Your task to perform on an android device: turn on the 12-hour format for clock Image 0: 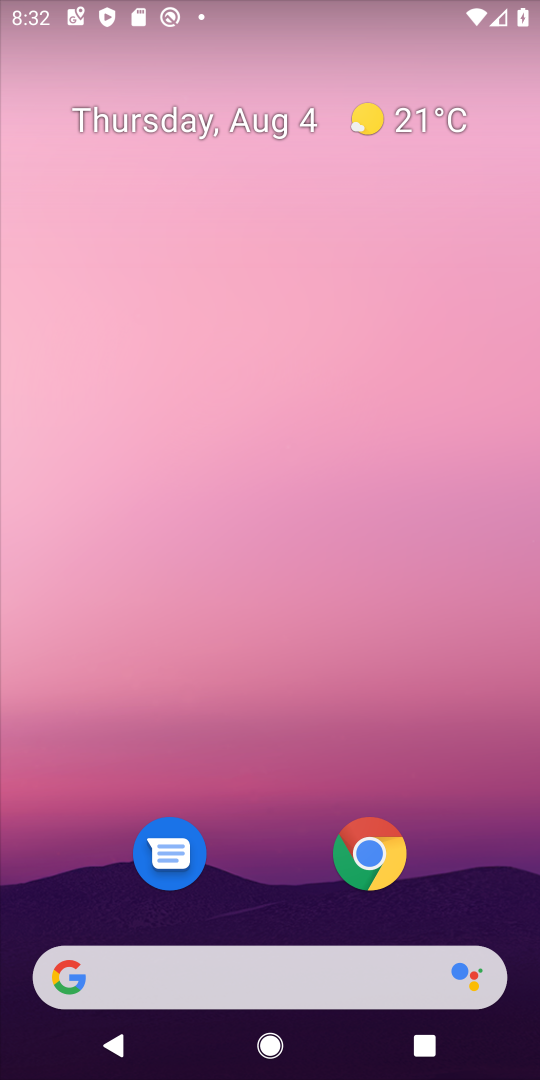
Step 0: drag from (283, 916) to (347, 242)
Your task to perform on an android device: turn on the 12-hour format for clock Image 1: 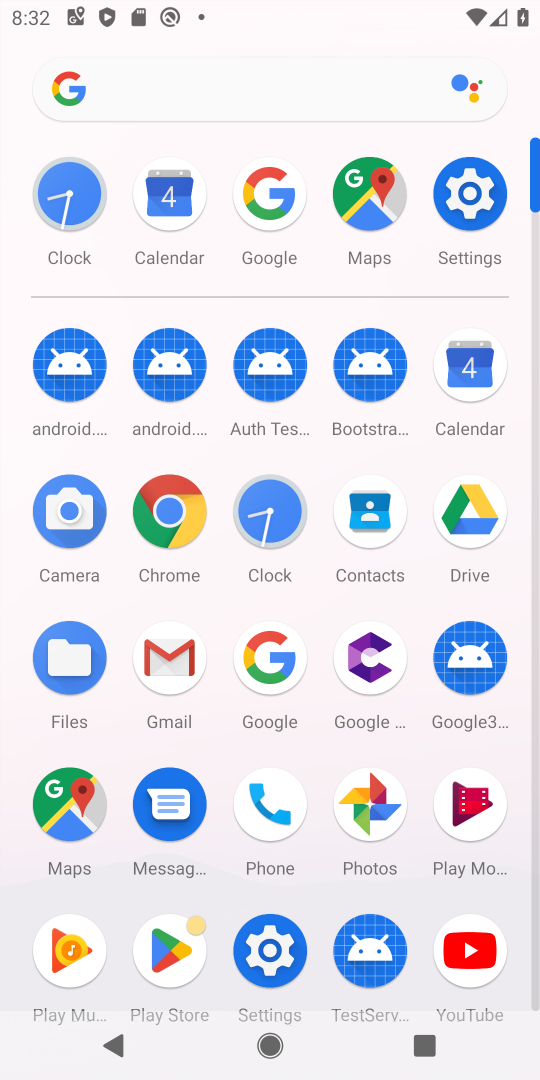
Step 1: click (276, 515)
Your task to perform on an android device: turn on the 12-hour format for clock Image 2: 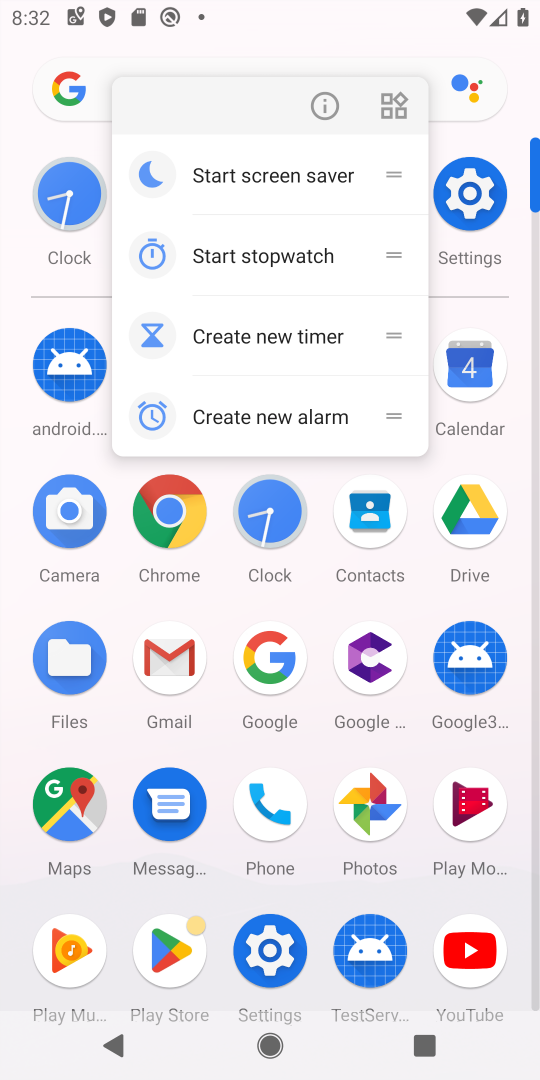
Step 2: click (276, 515)
Your task to perform on an android device: turn on the 12-hour format for clock Image 3: 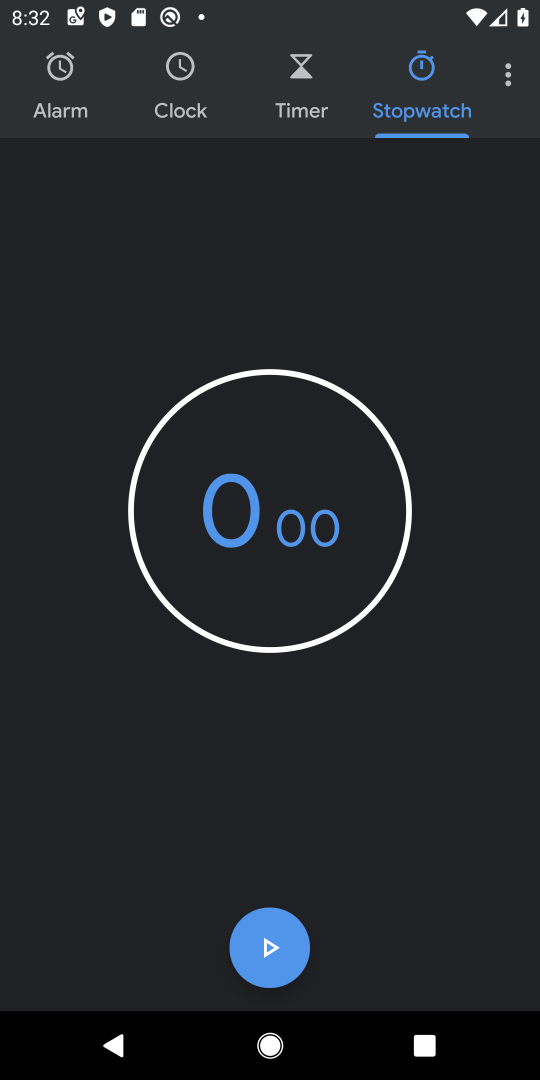
Step 3: click (490, 92)
Your task to perform on an android device: turn on the 12-hour format for clock Image 4: 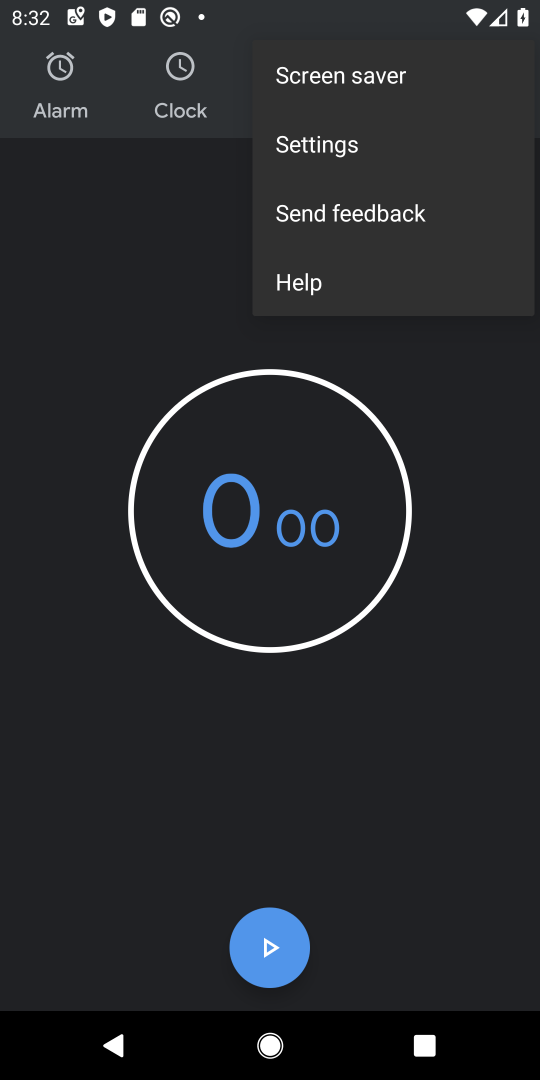
Step 4: click (353, 147)
Your task to perform on an android device: turn on the 12-hour format for clock Image 5: 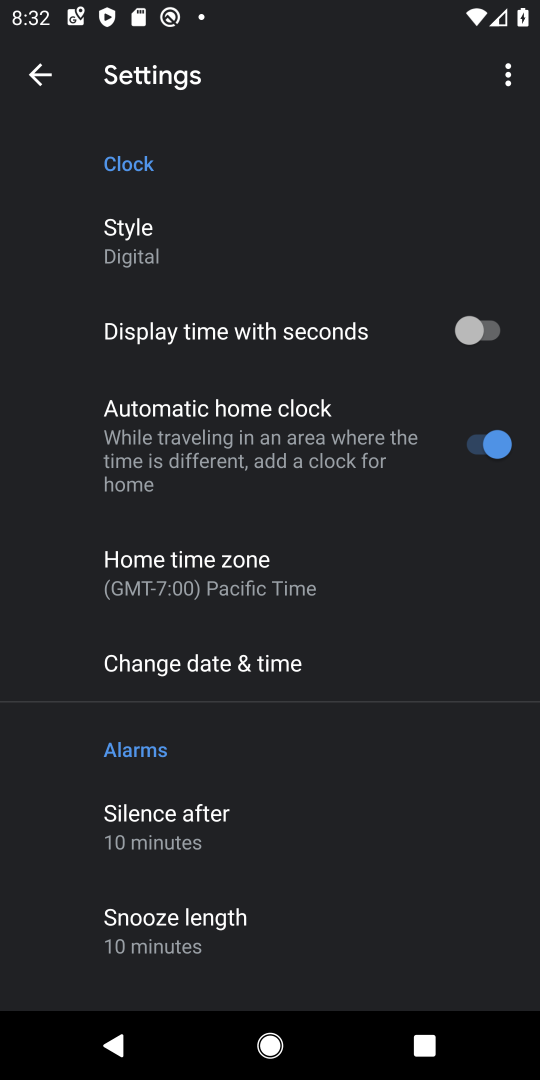
Step 5: click (208, 668)
Your task to perform on an android device: turn on the 12-hour format for clock Image 6: 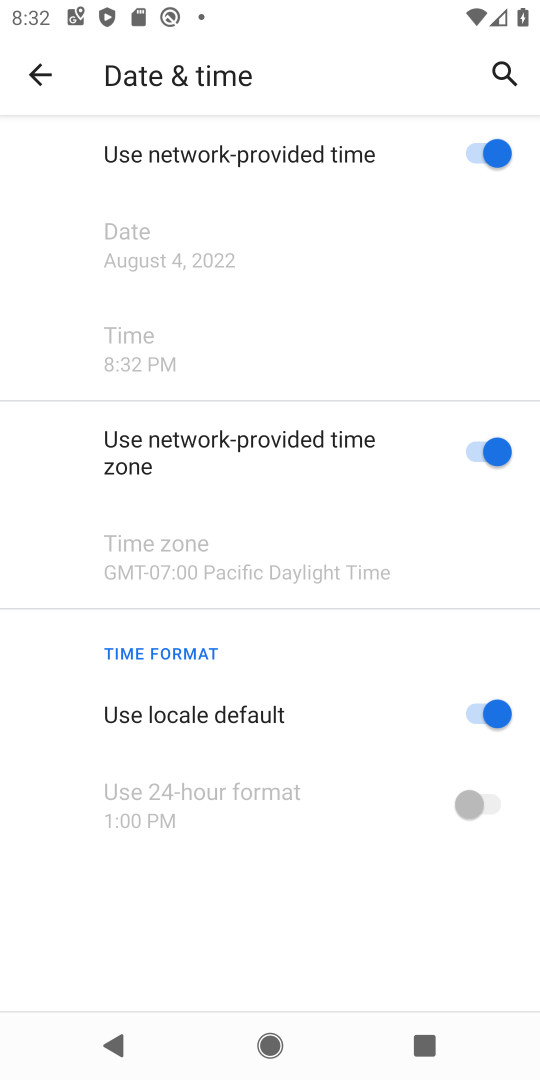
Step 6: task complete